Your task to perform on an android device: choose inbox layout in the gmail app Image 0: 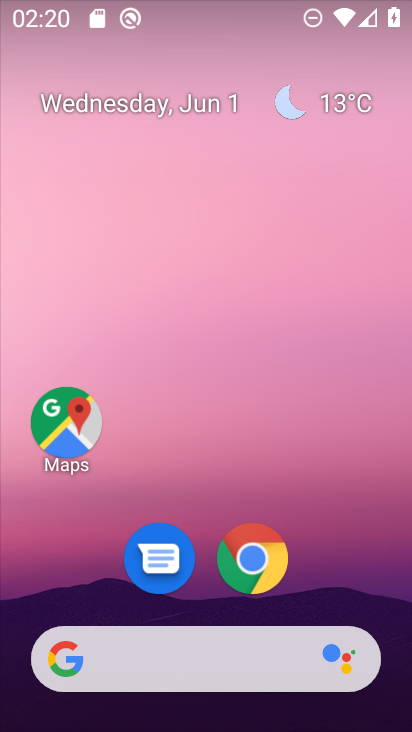
Step 0: click (237, 543)
Your task to perform on an android device: choose inbox layout in the gmail app Image 1: 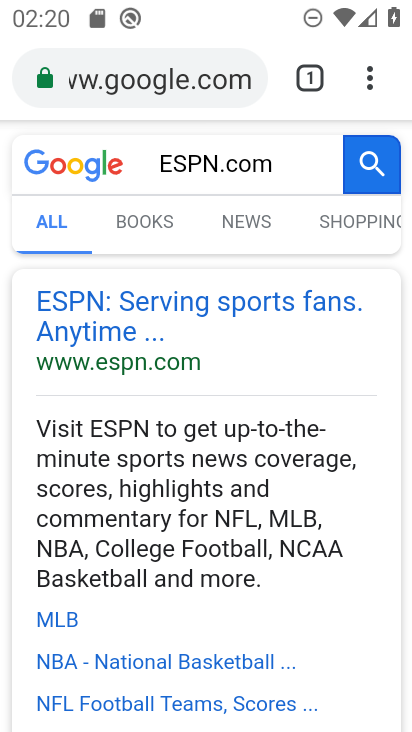
Step 1: click (373, 77)
Your task to perform on an android device: choose inbox layout in the gmail app Image 2: 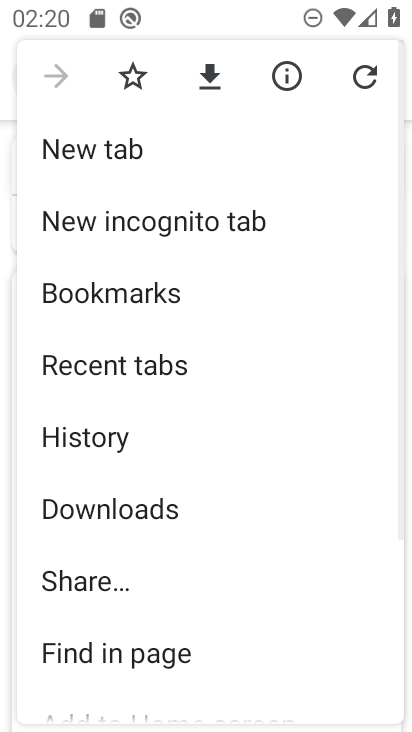
Step 2: drag from (230, 659) to (231, 269)
Your task to perform on an android device: choose inbox layout in the gmail app Image 3: 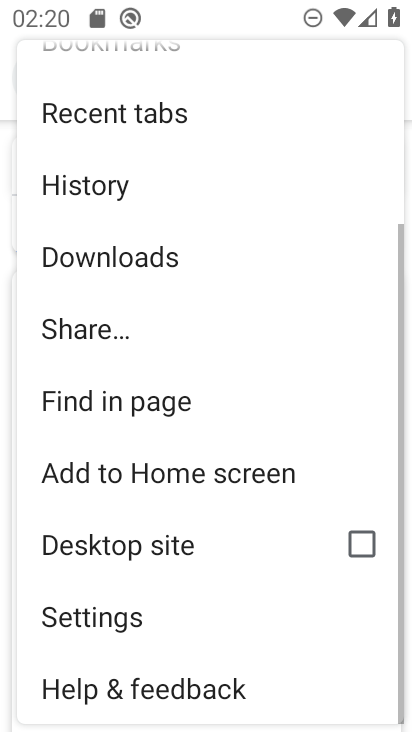
Step 3: click (123, 626)
Your task to perform on an android device: choose inbox layout in the gmail app Image 4: 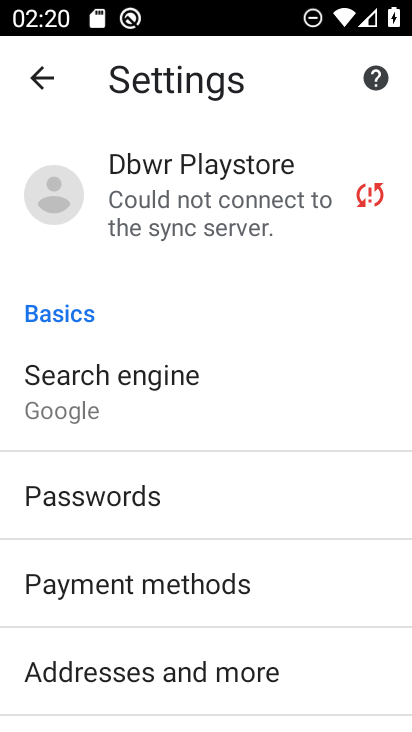
Step 4: drag from (316, 701) to (291, 353)
Your task to perform on an android device: choose inbox layout in the gmail app Image 5: 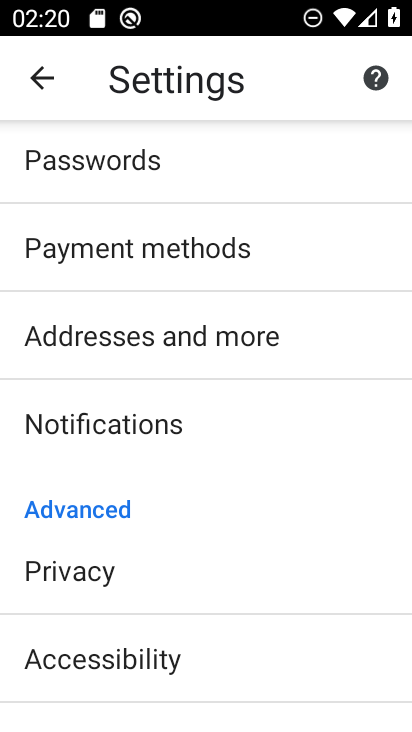
Step 5: press home button
Your task to perform on an android device: choose inbox layout in the gmail app Image 6: 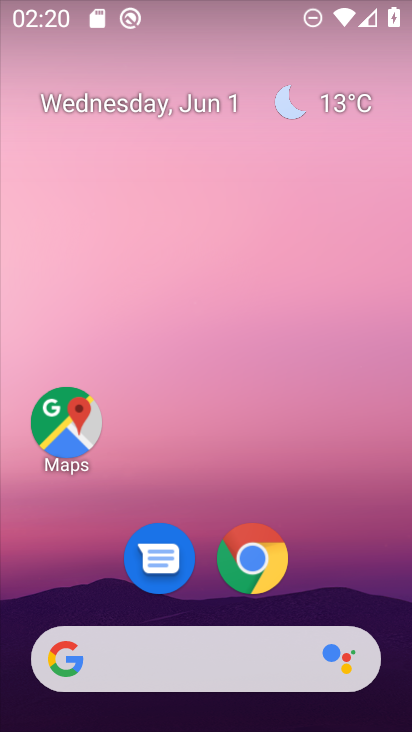
Step 6: drag from (396, 718) to (374, 207)
Your task to perform on an android device: choose inbox layout in the gmail app Image 7: 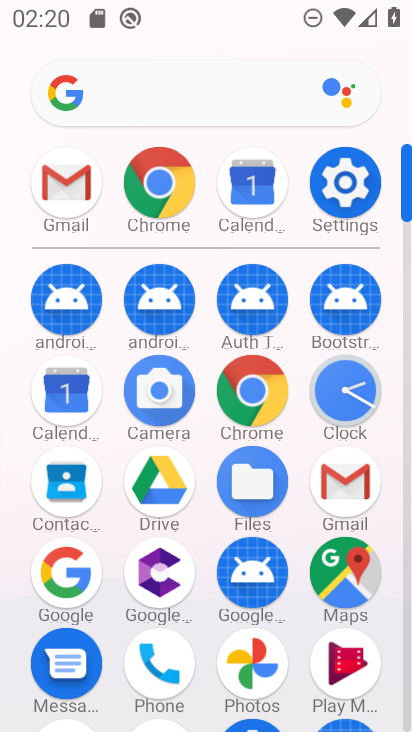
Step 7: click (331, 505)
Your task to perform on an android device: choose inbox layout in the gmail app Image 8: 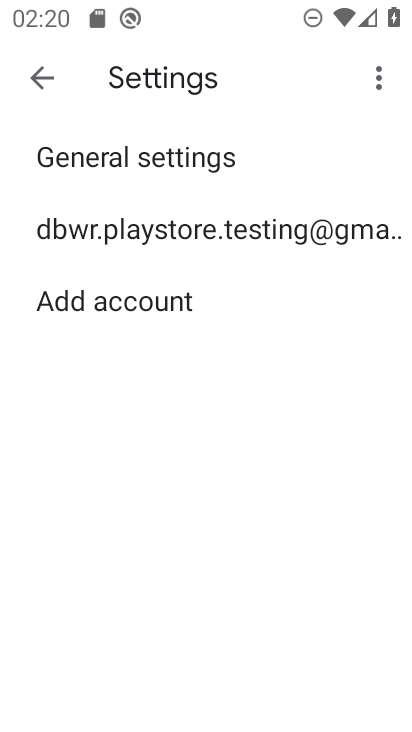
Step 8: click (52, 222)
Your task to perform on an android device: choose inbox layout in the gmail app Image 9: 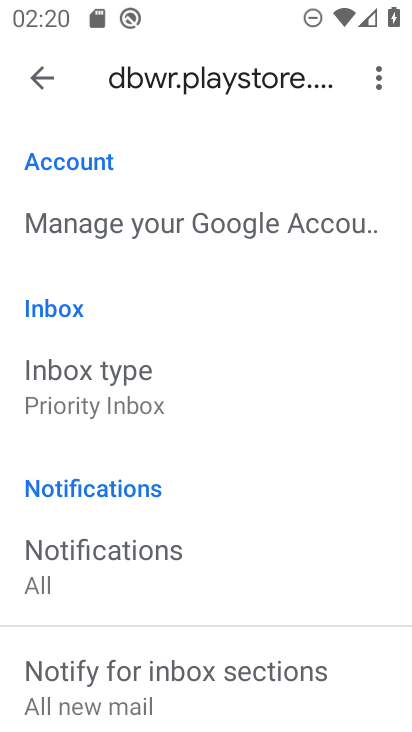
Step 9: click (87, 391)
Your task to perform on an android device: choose inbox layout in the gmail app Image 10: 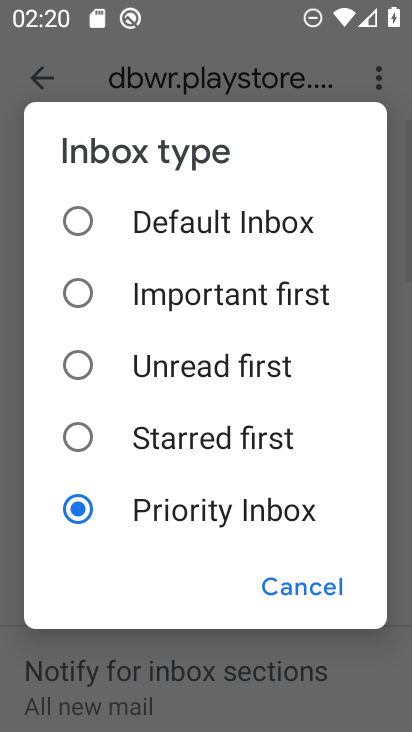
Step 10: click (81, 299)
Your task to perform on an android device: choose inbox layout in the gmail app Image 11: 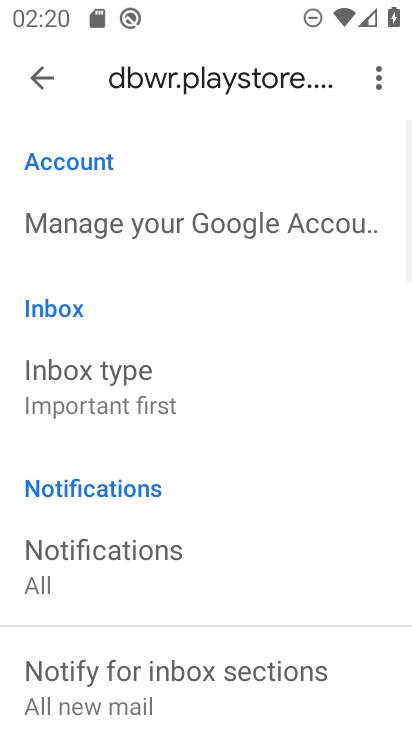
Step 11: task complete